Your task to perform on an android device: Go to Maps Image 0: 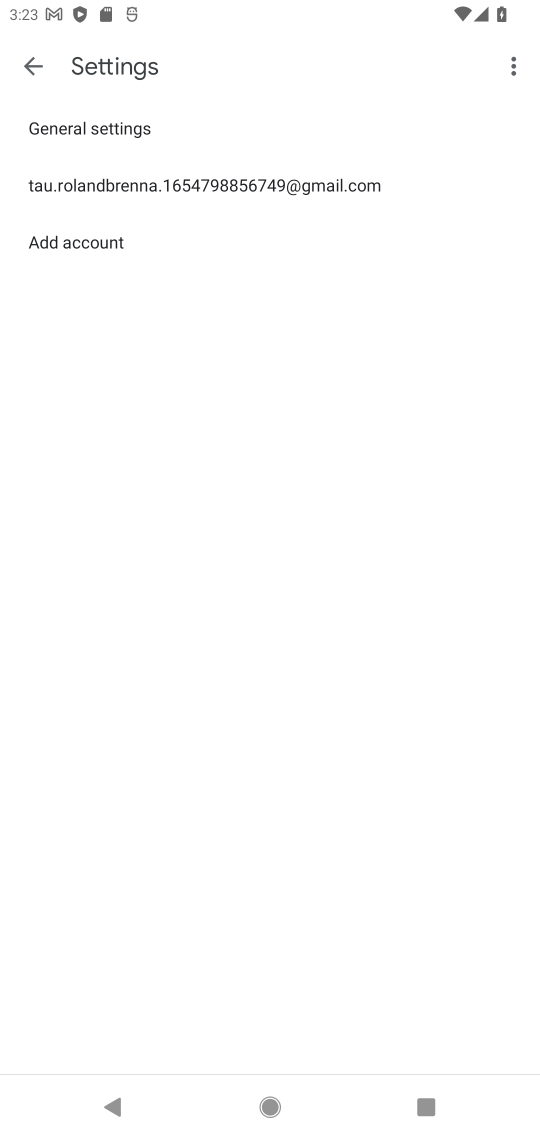
Step 0: press home button
Your task to perform on an android device: Go to Maps Image 1: 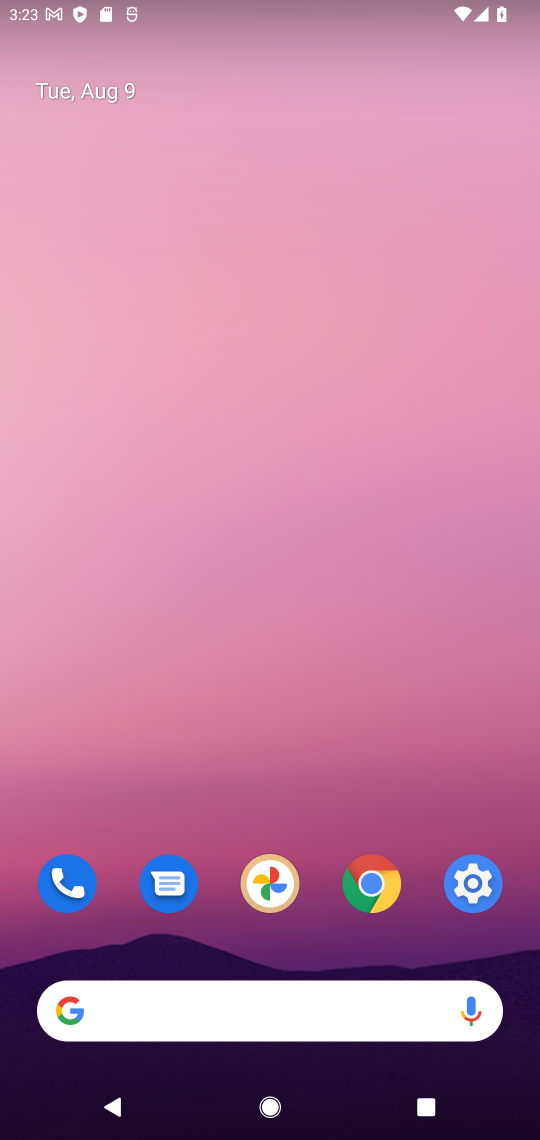
Step 1: drag from (371, 1038) to (177, 337)
Your task to perform on an android device: Go to Maps Image 2: 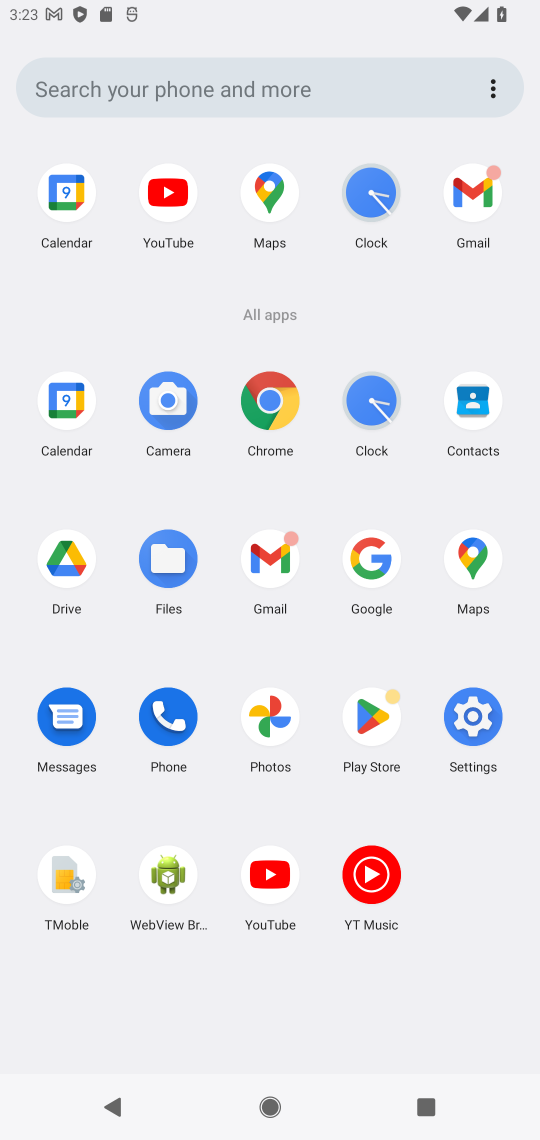
Step 2: click (481, 566)
Your task to perform on an android device: Go to Maps Image 3: 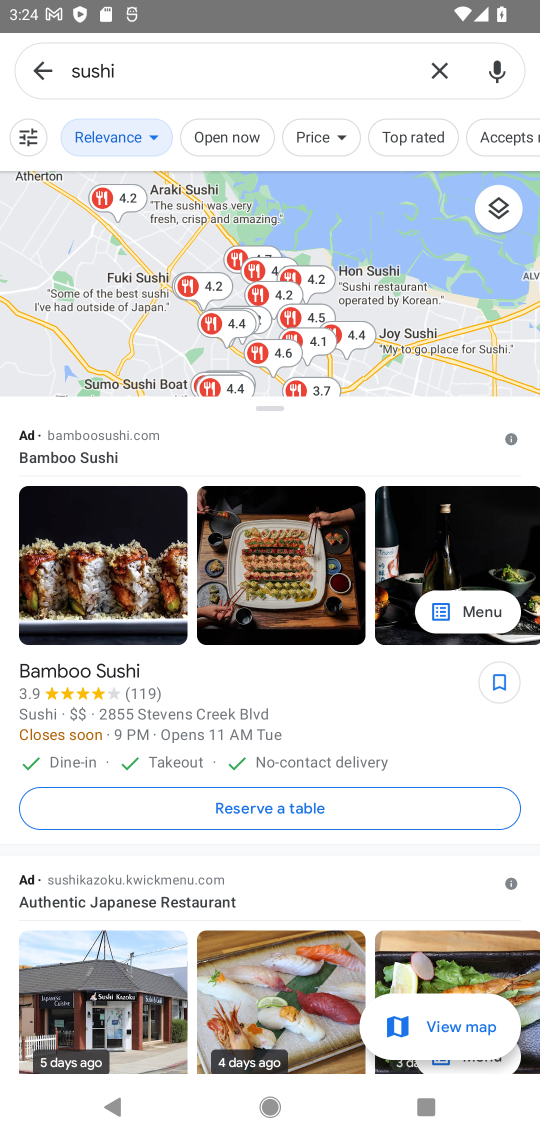
Step 3: click (36, 82)
Your task to perform on an android device: Go to Maps Image 4: 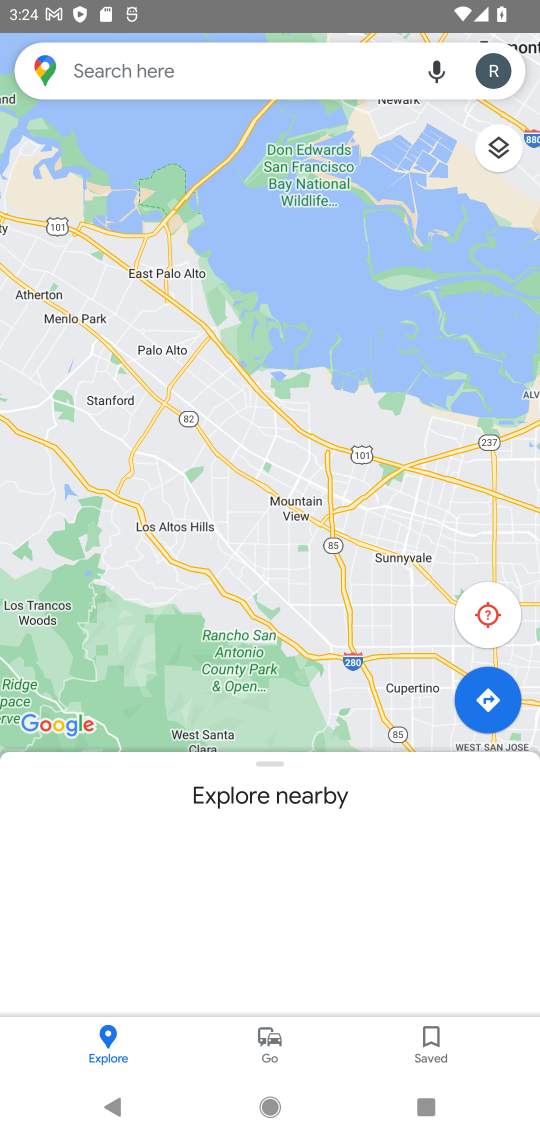
Step 4: click (490, 613)
Your task to perform on an android device: Go to Maps Image 5: 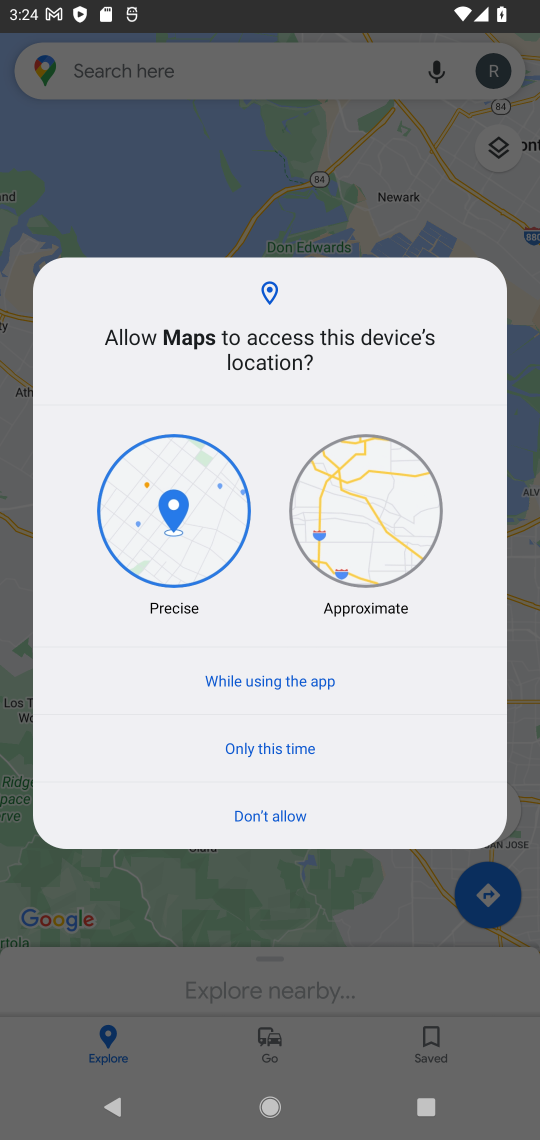
Step 5: click (370, 528)
Your task to perform on an android device: Go to Maps Image 6: 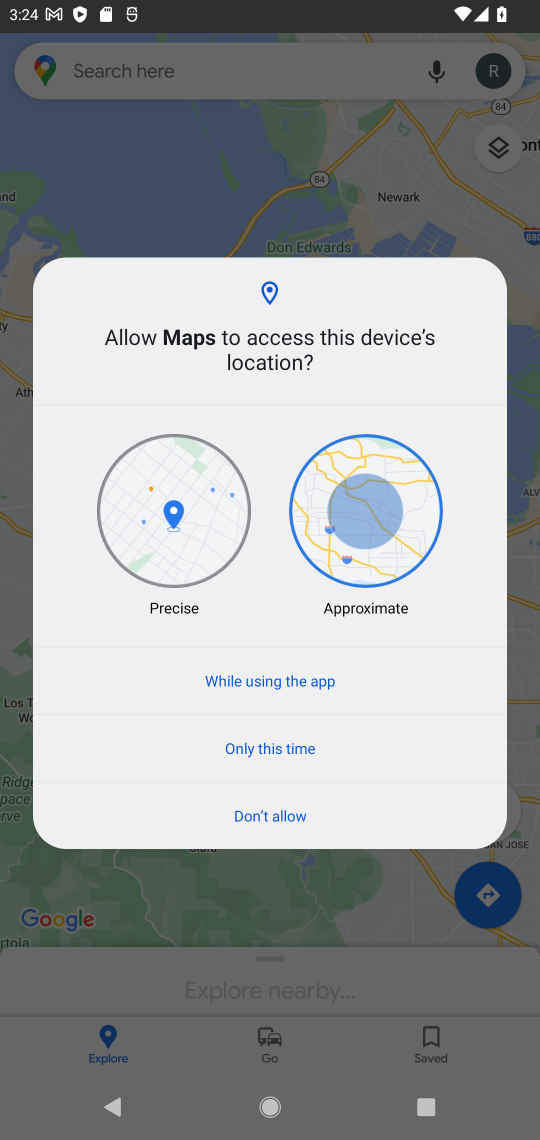
Step 6: click (258, 684)
Your task to perform on an android device: Go to Maps Image 7: 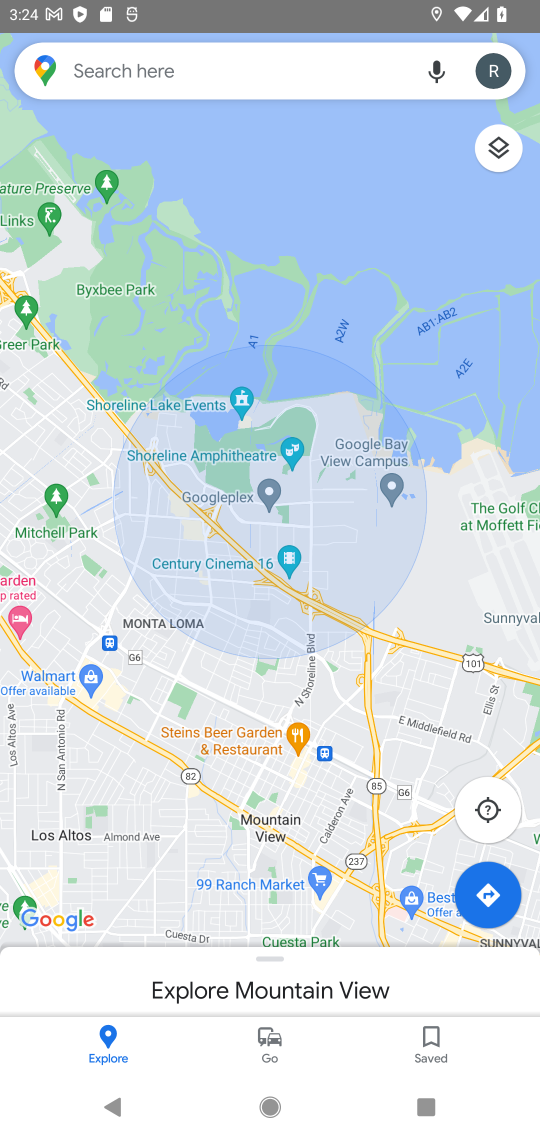
Step 7: task complete